Your task to perform on an android device: Open sound settings Image 0: 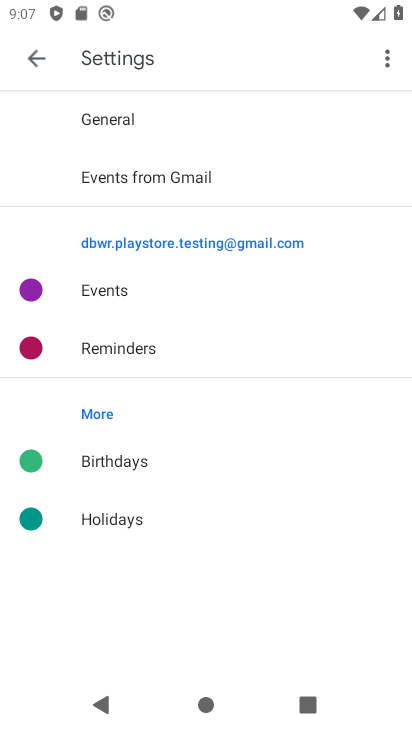
Step 0: press home button
Your task to perform on an android device: Open sound settings Image 1: 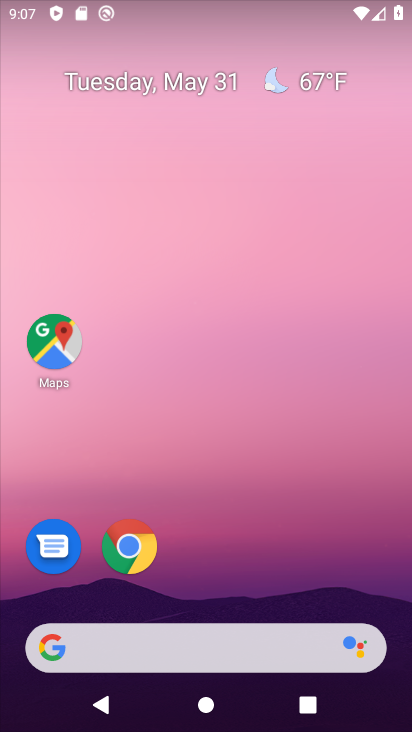
Step 1: drag from (245, 616) to (219, 5)
Your task to perform on an android device: Open sound settings Image 2: 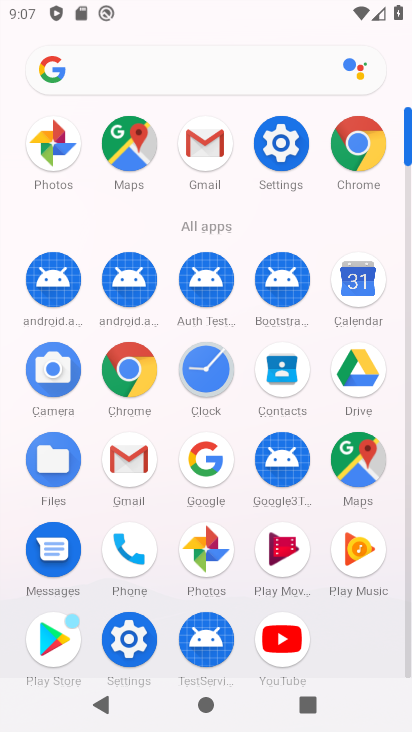
Step 2: click (284, 146)
Your task to perform on an android device: Open sound settings Image 3: 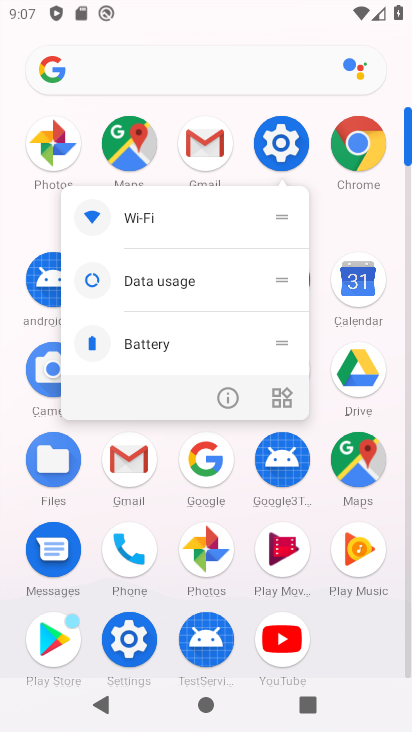
Step 3: click (283, 145)
Your task to perform on an android device: Open sound settings Image 4: 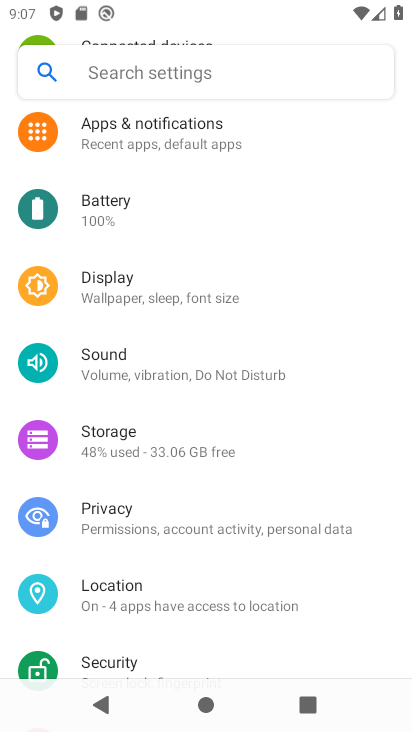
Step 4: drag from (175, 247) to (167, 439)
Your task to perform on an android device: Open sound settings Image 5: 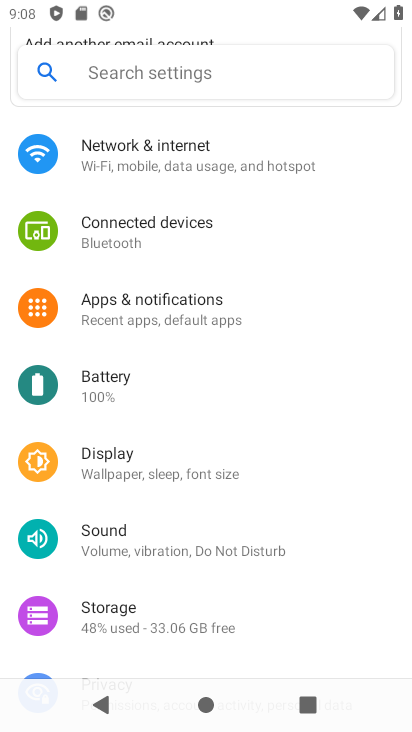
Step 5: click (157, 550)
Your task to perform on an android device: Open sound settings Image 6: 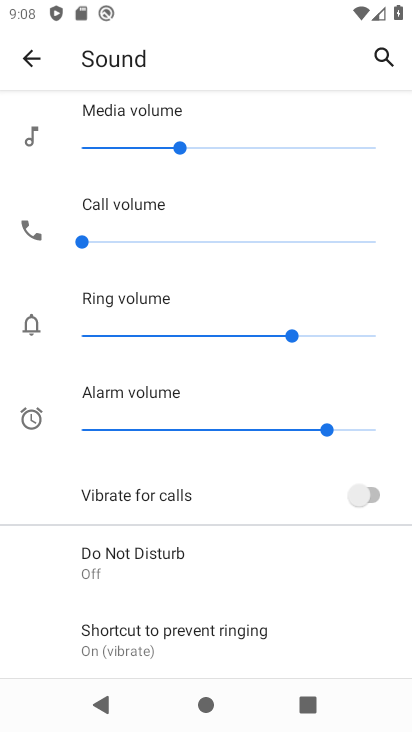
Step 6: task complete